Your task to perform on an android device: Do I have any events this weekend? Image 0: 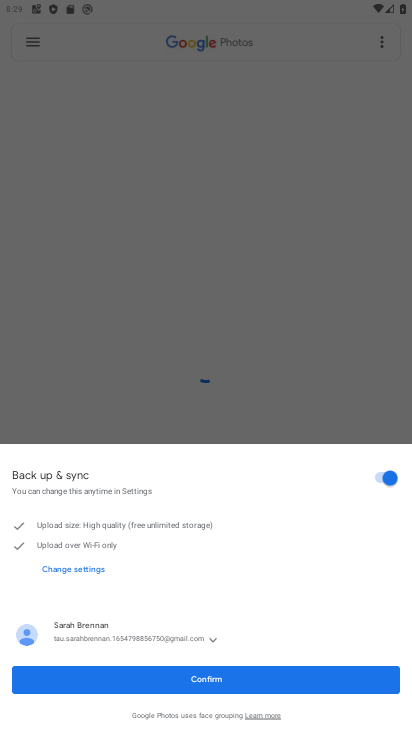
Step 0: press home button
Your task to perform on an android device: Do I have any events this weekend? Image 1: 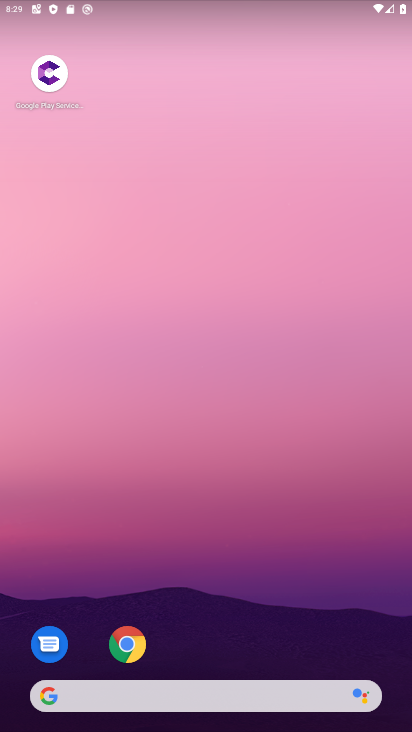
Step 1: drag from (302, 627) to (305, 103)
Your task to perform on an android device: Do I have any events this weekend? Image 2: 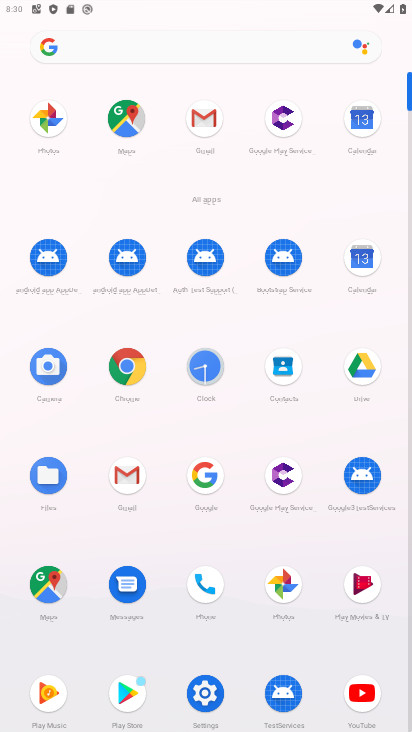
Step 2: click (359, 250)
Your task to perform on an android device: Do I have any events this weekend? Image 3: 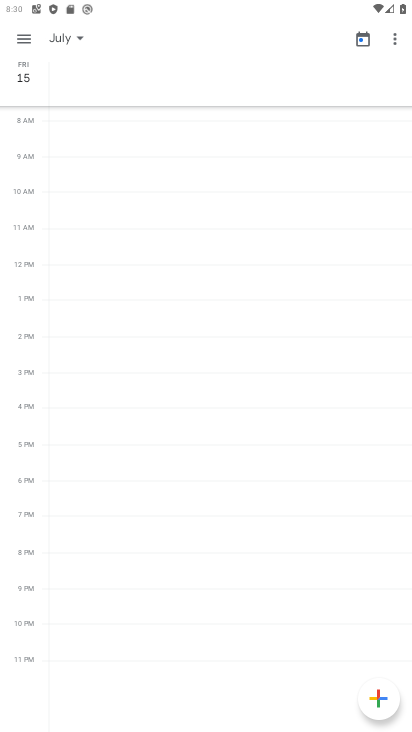
Step 3: click (27, 34)
Your task to perform on an android device: Do I have any events this weekend? Image 4: 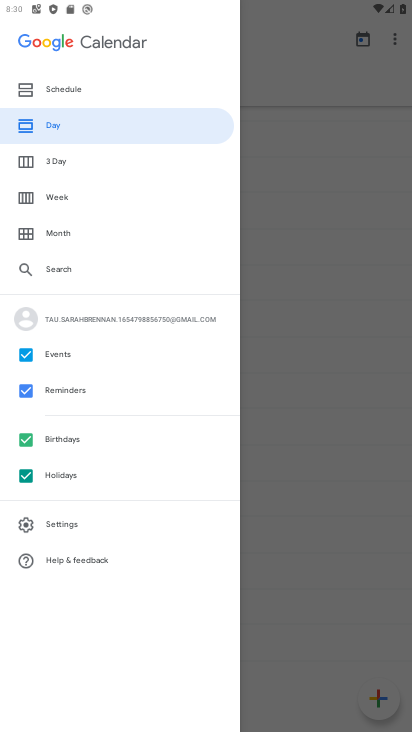
Step 4: click (66, 96)
Your task to perform on an android device: Do I have any events this weekend? Image 5: 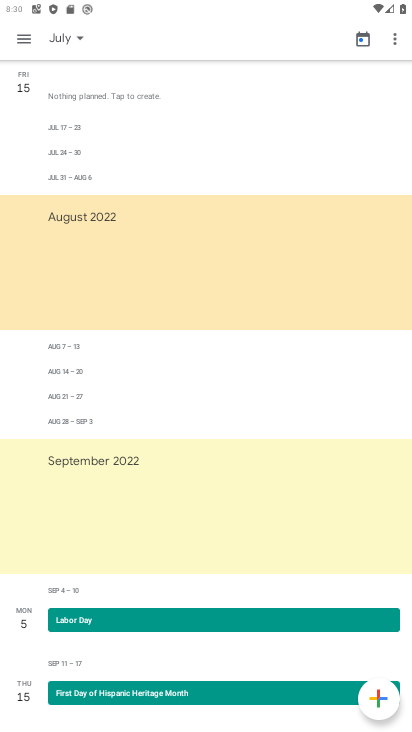
Step 5: task complete